Your task to perform on an android device: Open settings Image 0: 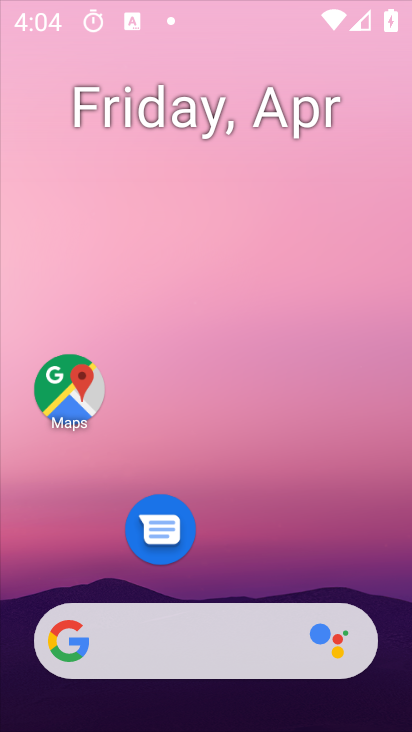
Step 0: click (310, 203)
Your task to perform on an android device: Open settings Image 1: 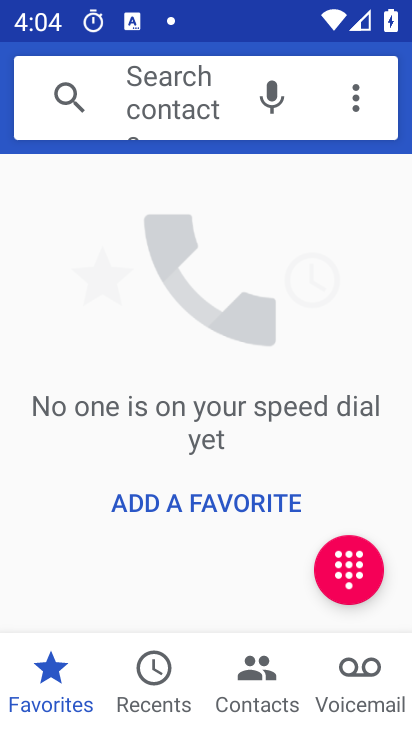
Step 1: press home button
Your task to perform on an android device: Open settings Image 2: 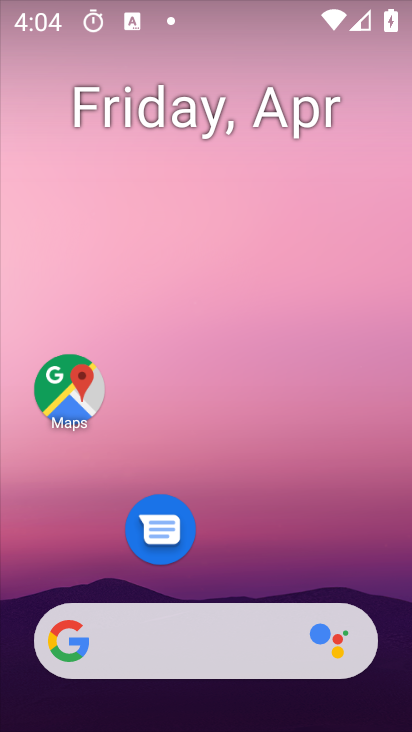
Step 2: drag from (257, 586) to (287, 190)
Your task to perform on an android device: Open settings Image 3: 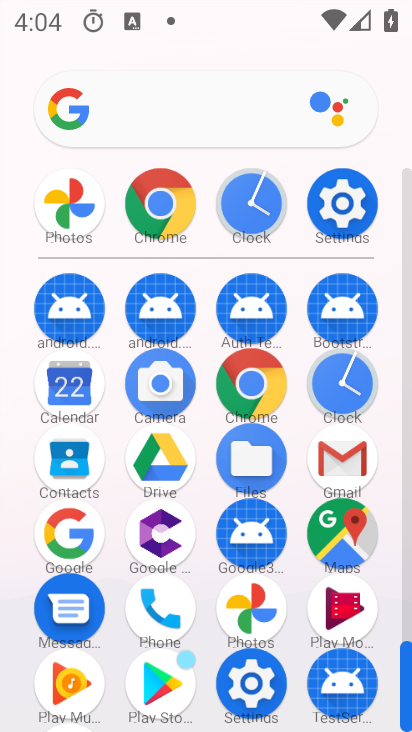
Step 3: click (322, 220)
Your task to perform on an android device: Open settings Image 4: 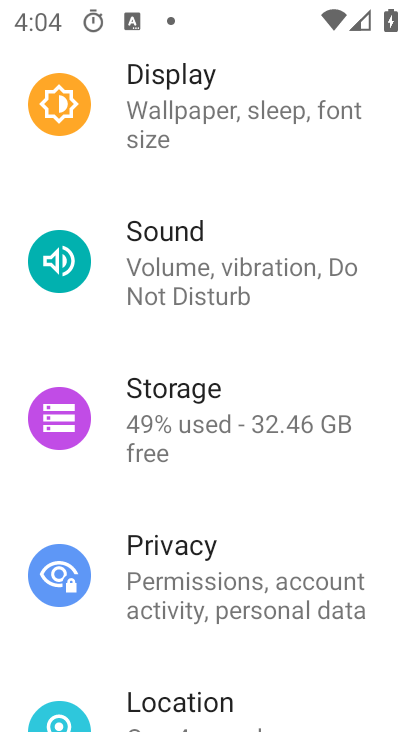
Step 4: task complete